Your task to perform on an android device: Open Android settings Image 0: 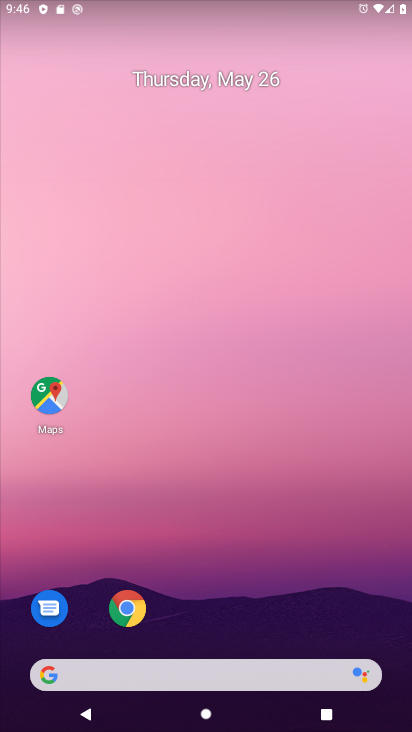
Step 0: drag from (294, 519) to (226, 38)
Your task to perform on an android device: Open Android settings Image 1: 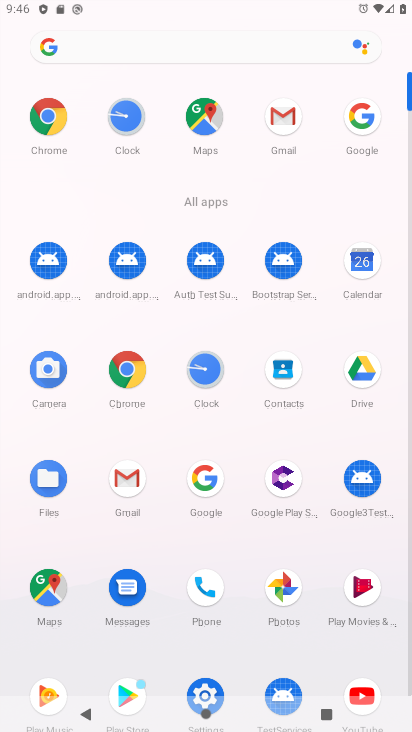
Step 1: click (206, 685)
Your task to perform on an android device: Open Android settings Image 2: 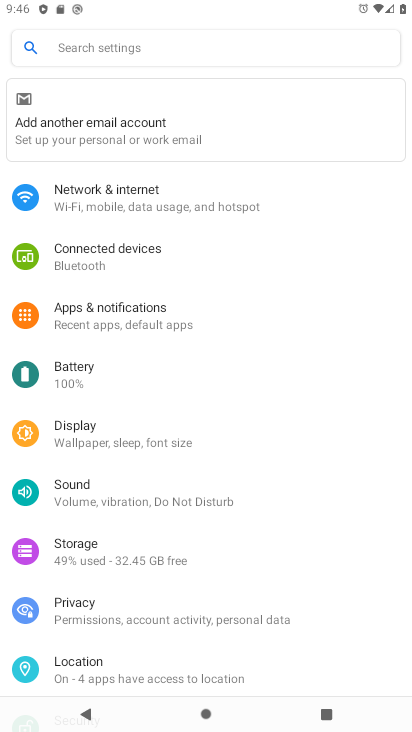
Step 2: drag from (231, 610) to (245, 61)
Your task to perform on an android device: Open Android settings Image 3: 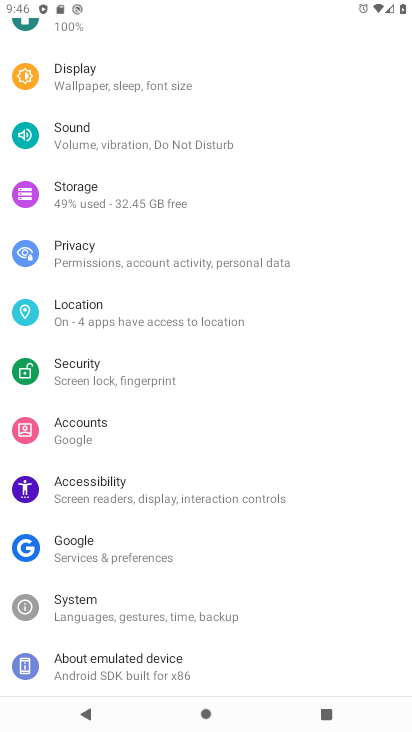
Step 3: click (192, 662)
Your task to perform on an android device: Open Android settings Image 4: 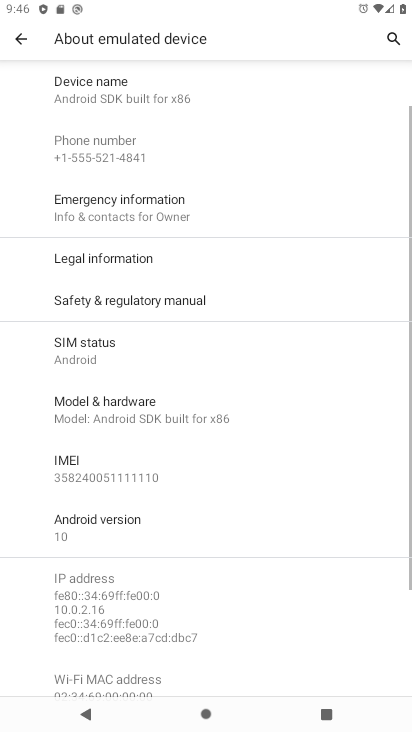
Step 4: click (179, 512)
Your task to perform on an android device: Open Android settings Image 5: 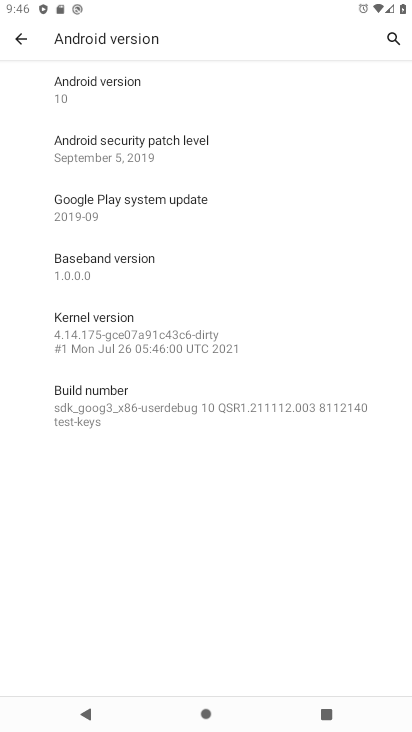
Step 5: task complete